Your task to perform on an android device: toggle airplane mode Image 0: 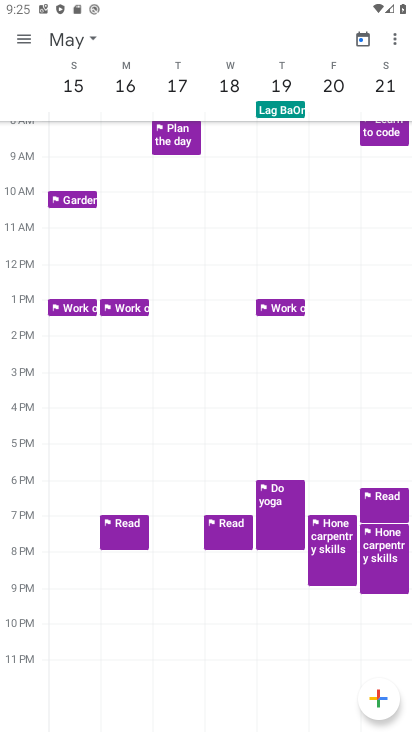
Step 0: press home button
Your task to perform on an android device: toggle airplane mode Image 1: 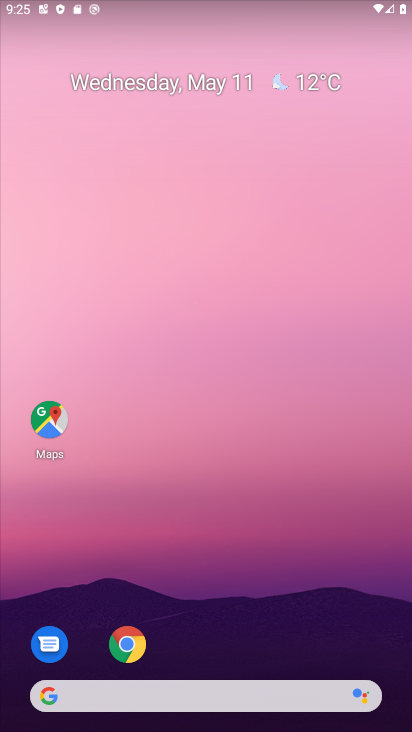
Step 1: drag from (267, 602) to (157, 299)
Your task to perform on an android device: toggle airplane mode Image 2: 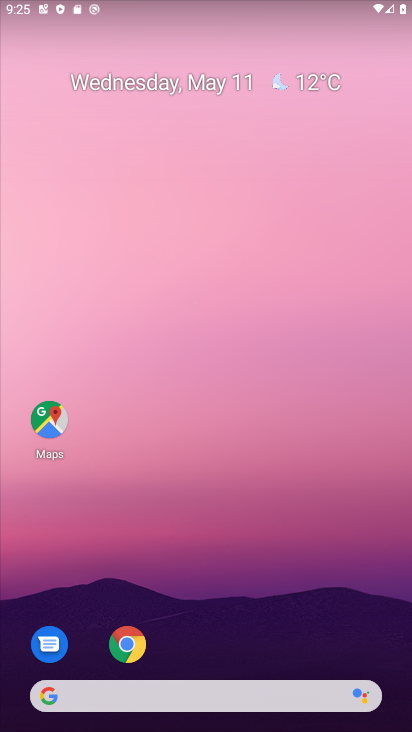
Step 2: drag from (246, 651) to (146, 144)
Your task to perform on an android device: toggle airplane mode Image 3: 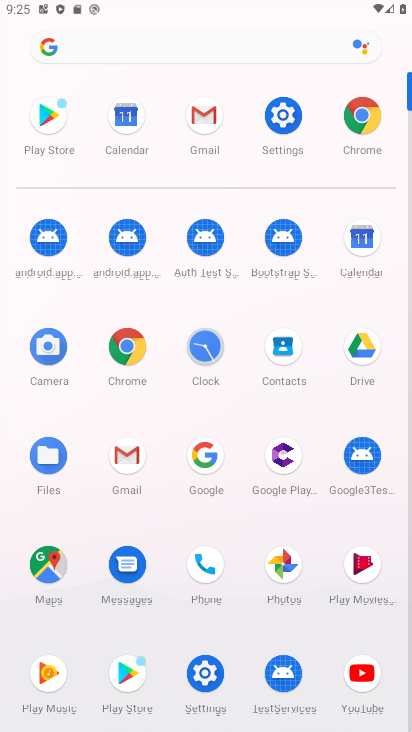
Step 3: click (282, 127)
Your task to perform on an android device: toggle airplane mode Image 4: 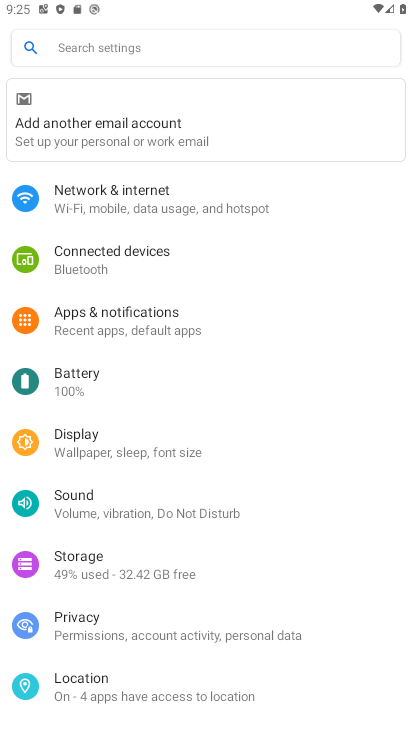
Step 4: click (165, 202)
Your task to perform on an android device: toggle airplane mode Image 5: 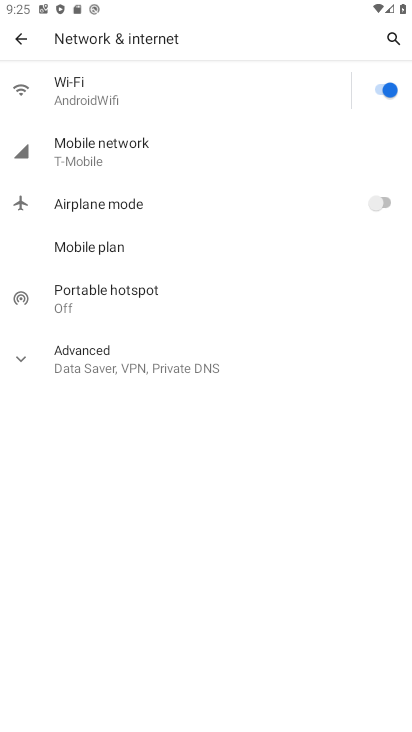
Step 5: click (386, 203)
Your task to perform on an android device: toggle airplane mode Image 6: 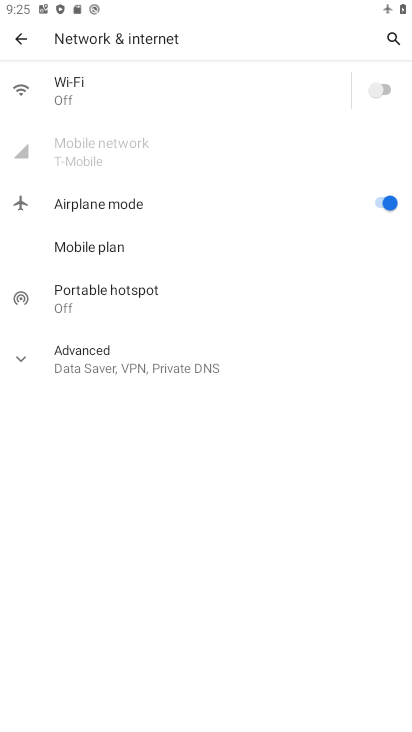
Step 6: task complete